Your task to perform on an android device: Search for vegetarian restaurants on Maps Image 0: 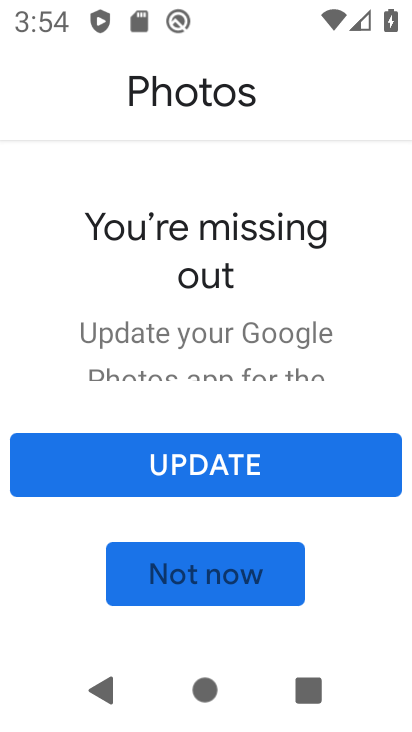
Step 0: press home button
Your task to perform on an android device: Search for vegetarian restaurants on Maps Image 1: 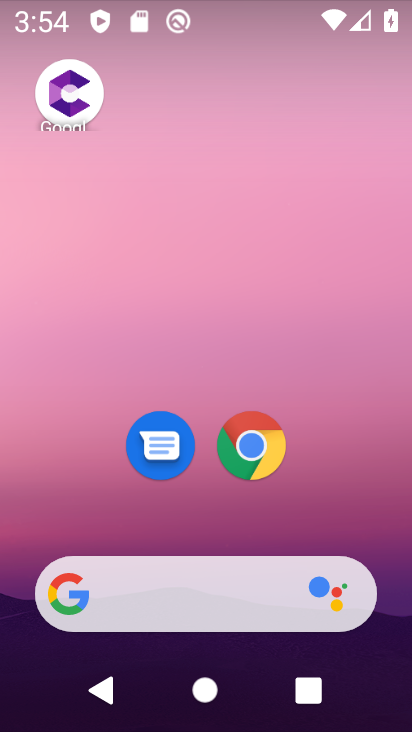
Step 1: drag from (190, 443) to (226, 72)
Your task to perform on an android device: Search for vegetarian restaurants on Maps Image 2: 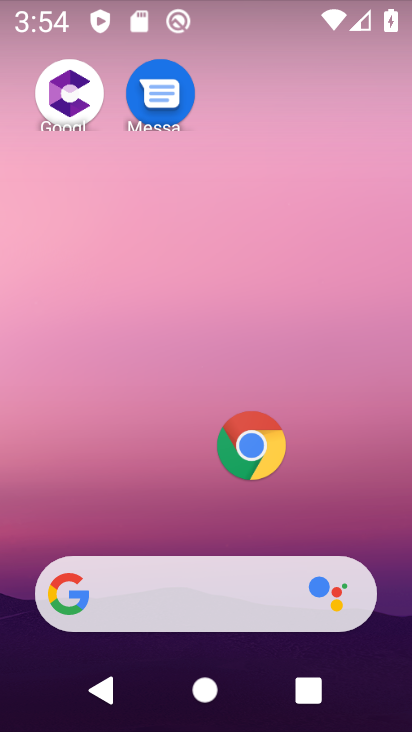
Step 2: click (199, 10)
Your task to perform on an android device: Search for vegetarian restaurants on Maps Image 3: 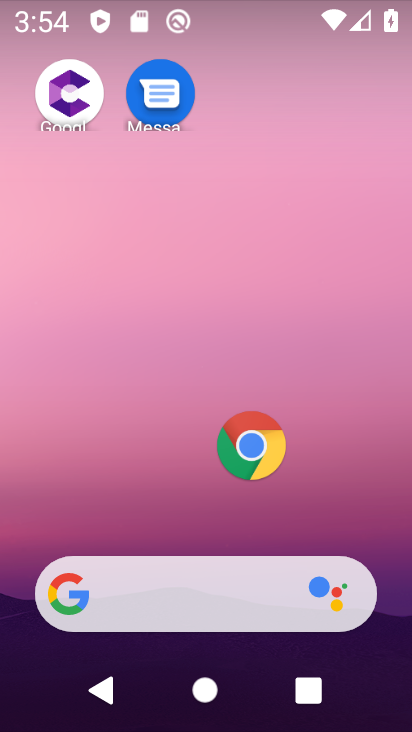
Step 3: drag from (166, 338) to (167, 179)
Your task to perform on an android device: Search for vegetarian restaurants on Maps Image 4: 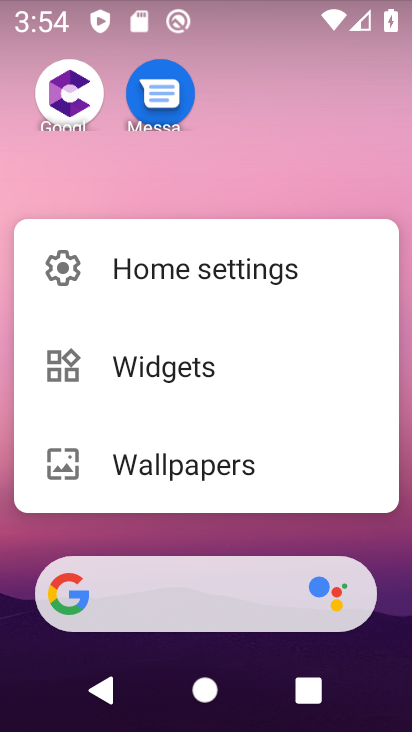
Step 4: click (279, 185)
Your task to perform on an android device: Search for vegetarian restaurants on Maps Image 5: 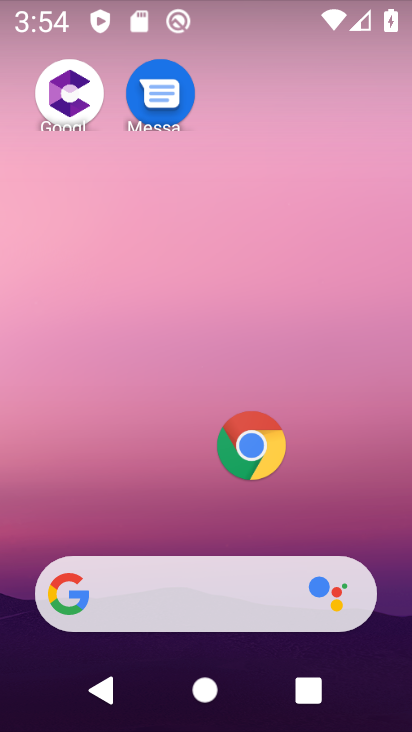
Step 5: drag from (109, 499) to (193, 12)
Your task to perform on an android device: Search for vegetarian restaurants on Maps Image 6: 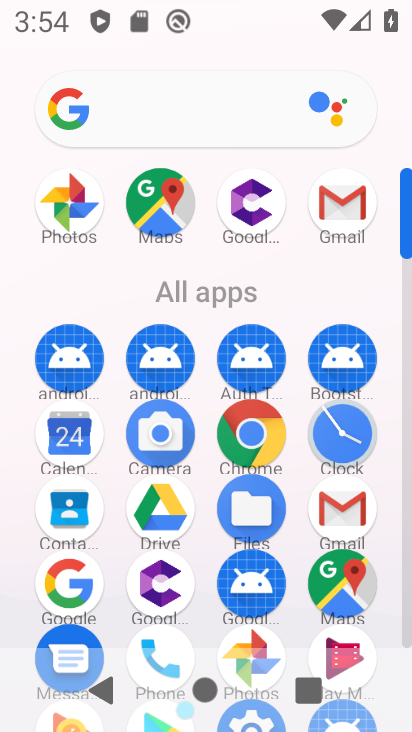
Step 6: drag from (212, 564) to (236, 62)
Your task to perform on an android device: Search for vegetarian restaurants on Maps Image 7: 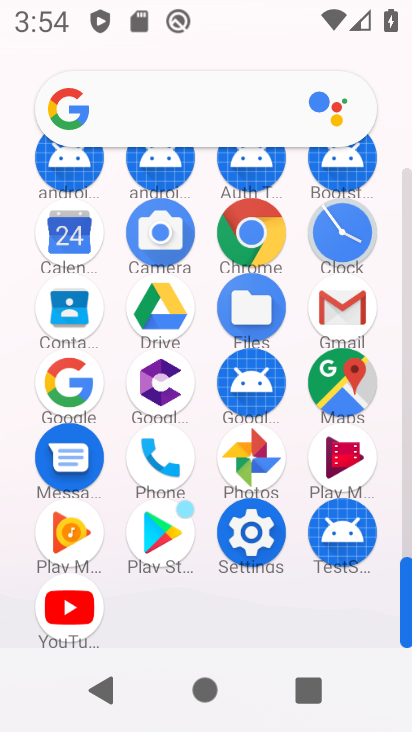
Step 7: drag from (242, 268) to (245, 387)
Your task to perform on an android device: Search for vegetarian restaurants on Maps Image 8: 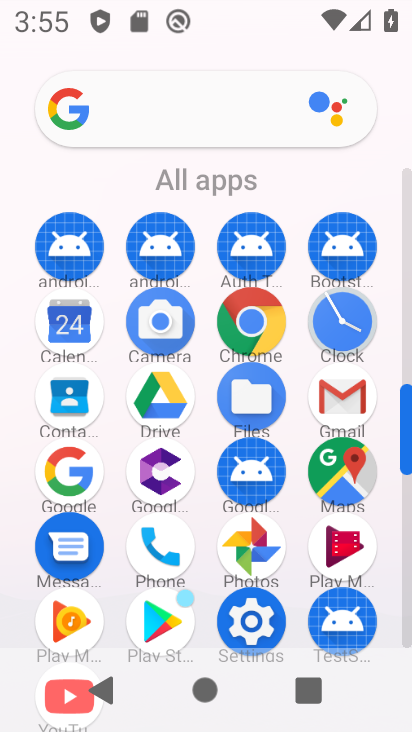
Step 8: click (331, 466)
Your task to perform on an android device: Search for vegetarian restaurants on Maps Image 9: 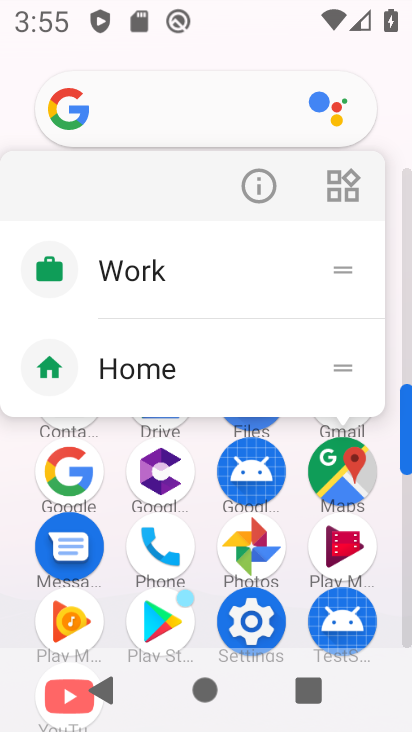
Step 9: click (333, 469)
Your task to perform on an android device: Search for vegetarian restaurants on Maps Image 10: 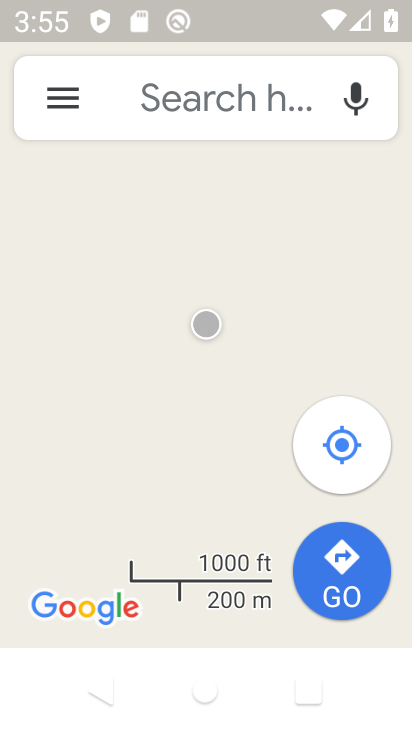
Step 10: click (212, 104)
Your task to perform on an android device: Search for vegetarian restaurants on Maps Image 11: 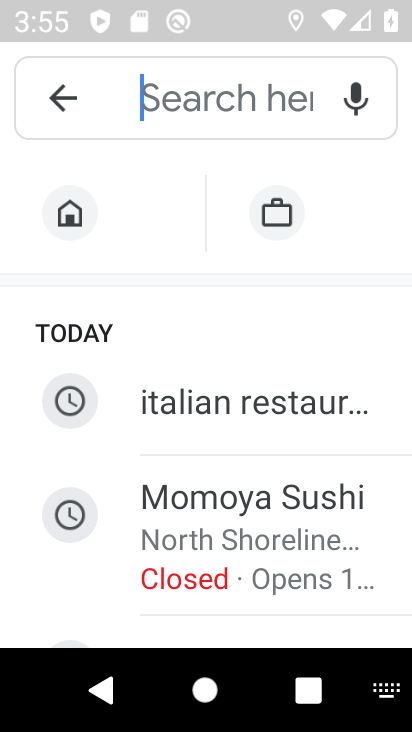
Step 11: type "vegetarian restaurants"
Your task to perform on an android device: Search for vegetarian restaurants on Maps Image 12: 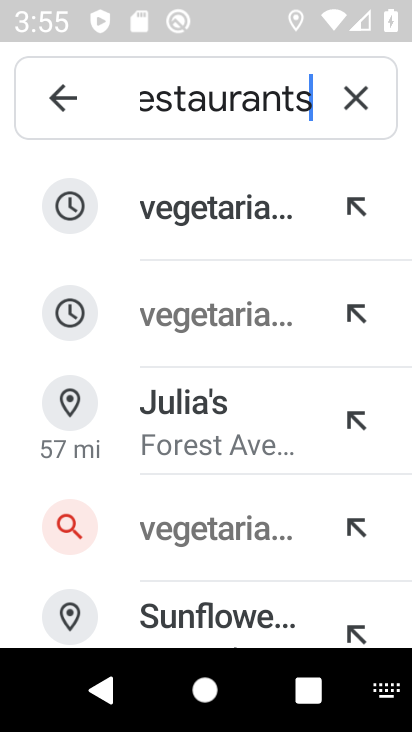
Step 12: click (243, 221)
Your task to perform on an android device: Search for vegetarian restaurants on Maps Image 13: 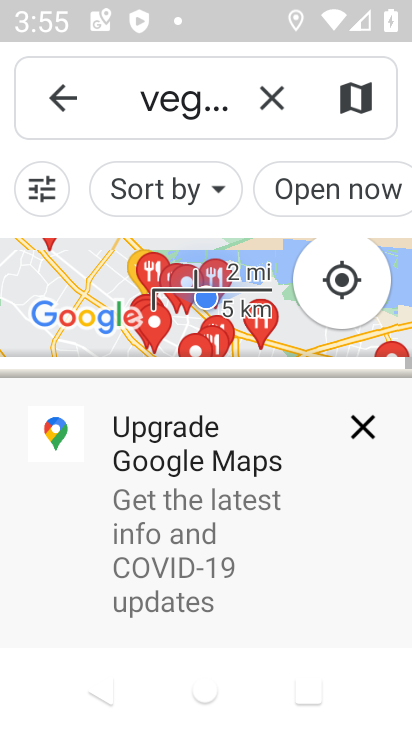
Step 13: task complete